Your task to perform on an android device: Open calendar and show me the first week of next month Image 0: 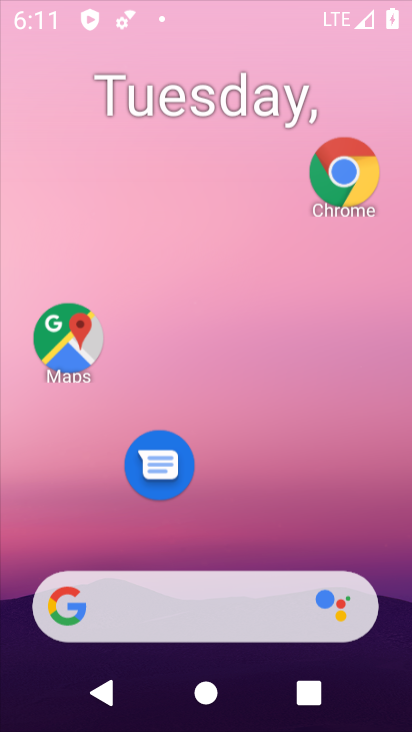
Step 0: press home button
Your task to perform on an android device: Open calendar and show me the first week of next month Image 1: 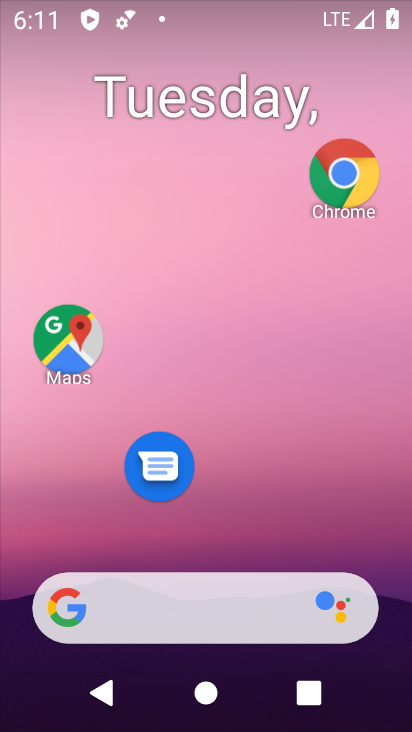
Step 1: drag from (286, 533) to (354, 120)
Your task to perform on an android device: Open calendar and show me the first week of next month Image 2: 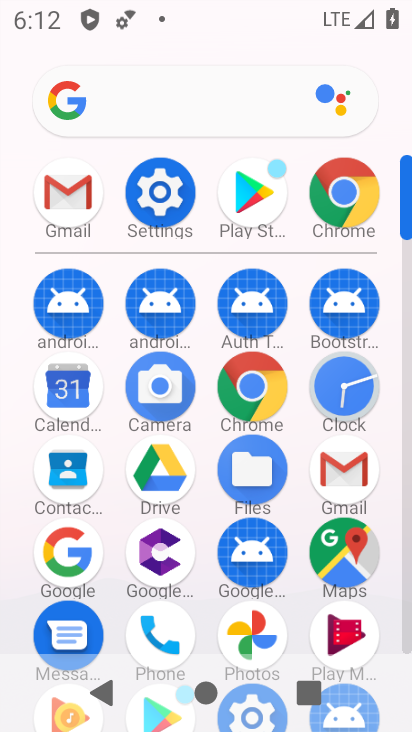
Step 2: click (403, 611)
Your task to perform on an android device: Open calendar and show me the first week of next month Image 3: 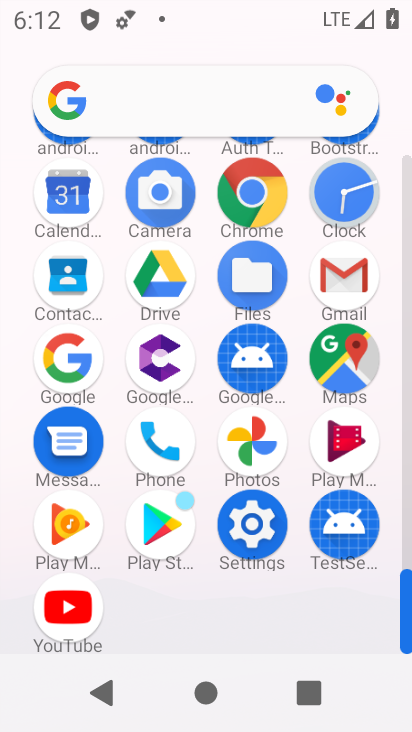
Step 3: click (65, 199)
Your task to perform on an android device: Open calendar and show me the first week of next month Image 4: 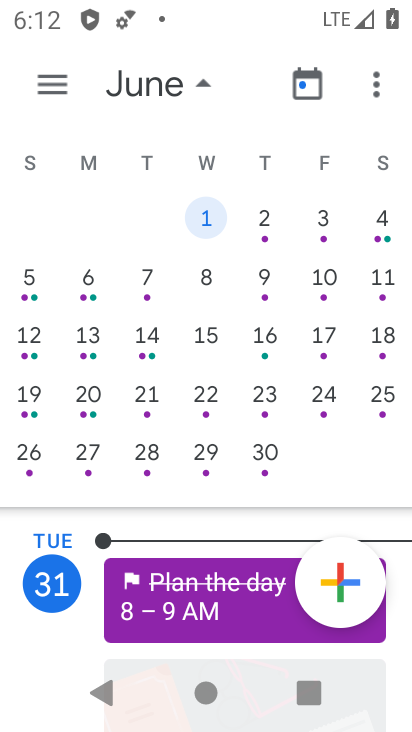
Step 4: task complete